Your task to perform on an android device: Find coffee shops on Maps Image 0: 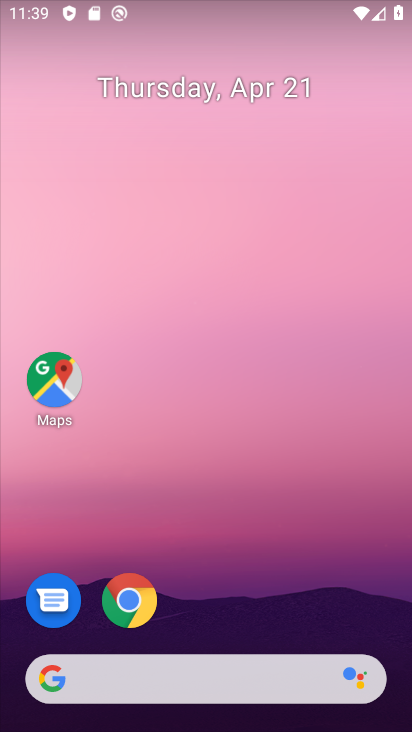
Step 0: click (50, 399)
Your task to perform on an android device: Find coffee shops on Maps Image 1: 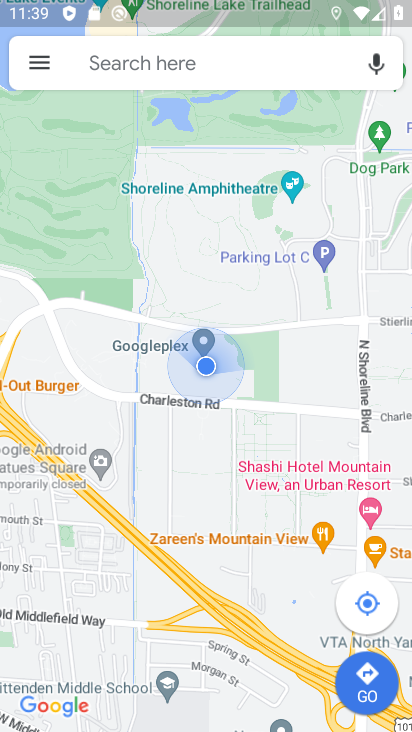
Step 1: click (228, 69)
Your task to perform on an android device: Find coffee shops on Maps Image 2: 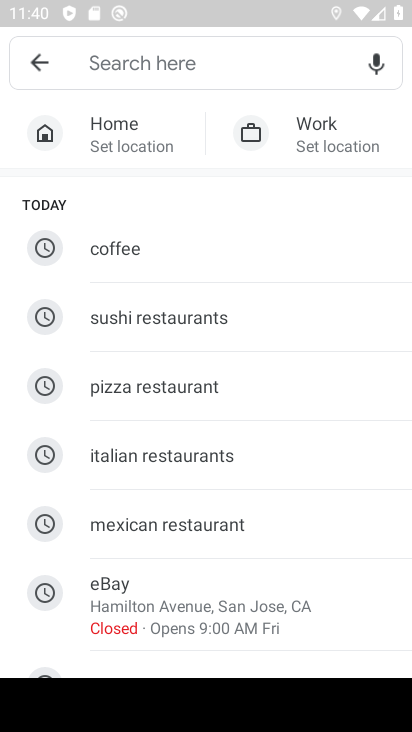
Step 2: type "coffee shops"
Your task to perform on an android device: Find coffee shops on Maps Image 3: 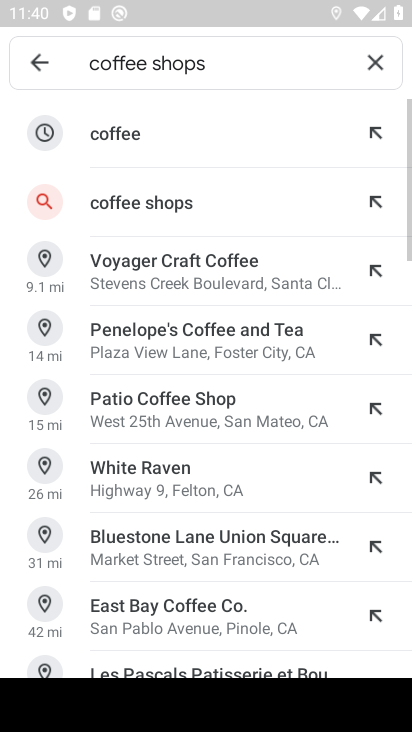
Step 3: click (189, 211)
Your task to perform on an android device: Find coffee shops on Maps Image 4: 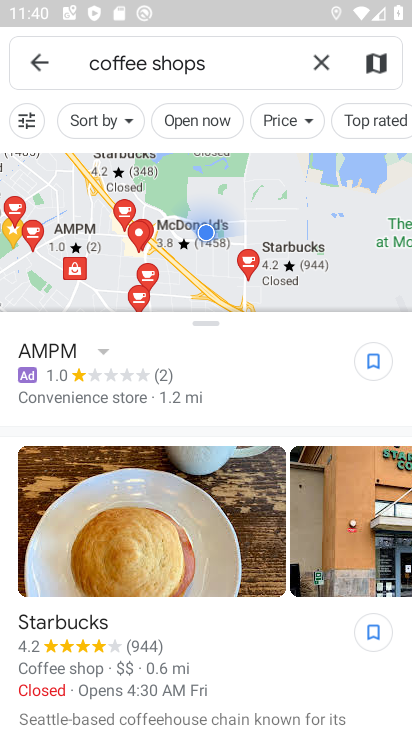
Step 4: task complete